Your task to perform on an android device: Open the phone app and click the voicemail tab. Image 0: 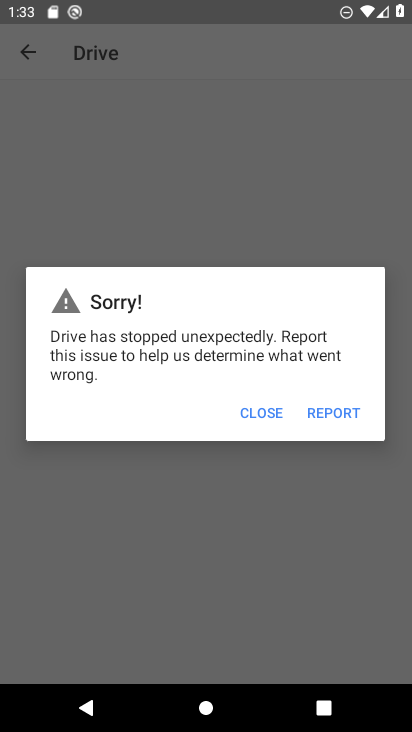
Step 0: press home button
Your task to perform on an android device: Open the phone app and click the voicemail tab. Image 1: 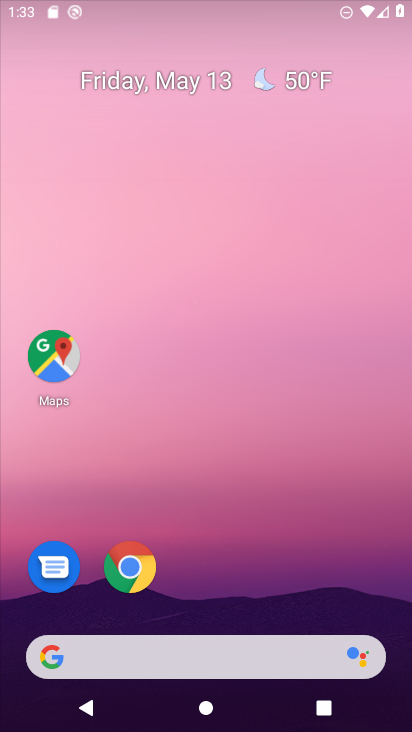
Step 1: drag from (220, 631) to (220, 286)
Your task to perform on an android device: Open the phone app and click the voicemail tab. Image 2: 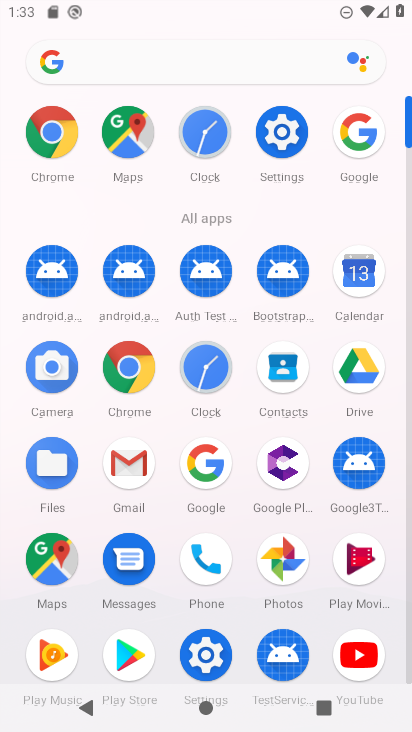
Step 2: click (207, 577)
Your task to perform on an android device: Open the phone app and click the voicemail tab. Image 3: 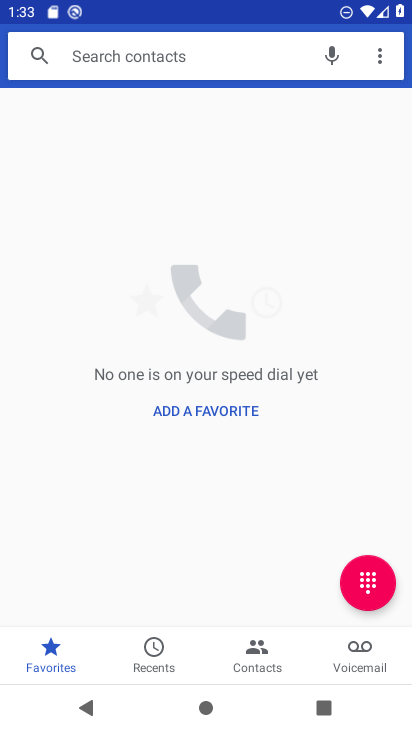
Step 3: click (368, 649)
Your task to perform on an android device: Open the phone app and click the voicemail tab. Image 4: 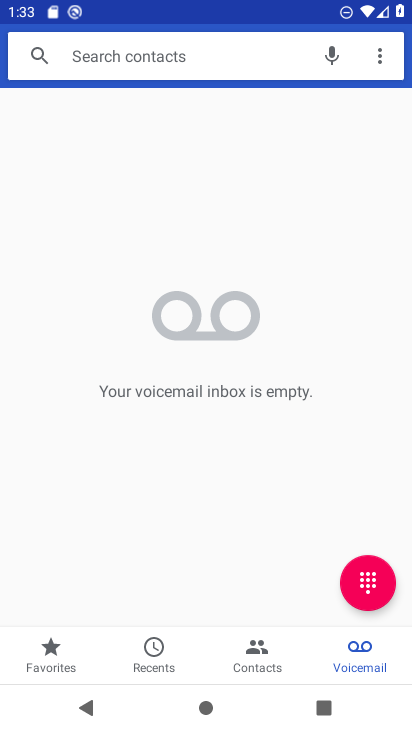
Step 4: task complete